Your task to perform on an android device: toggle location history Image 0: 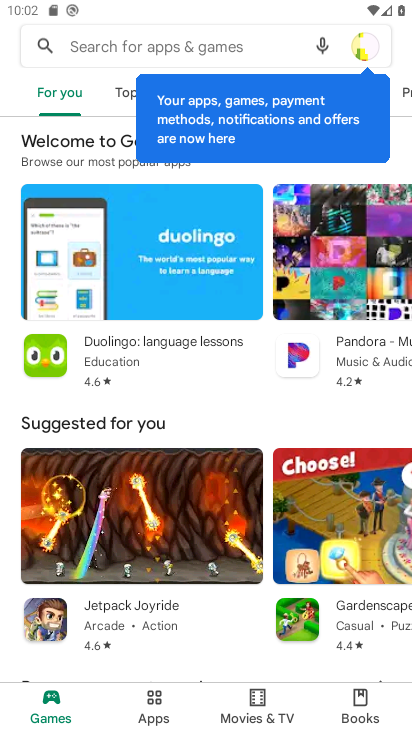
Step 0: press home button
Your task to perform on an android device: toggle location history Image 1: 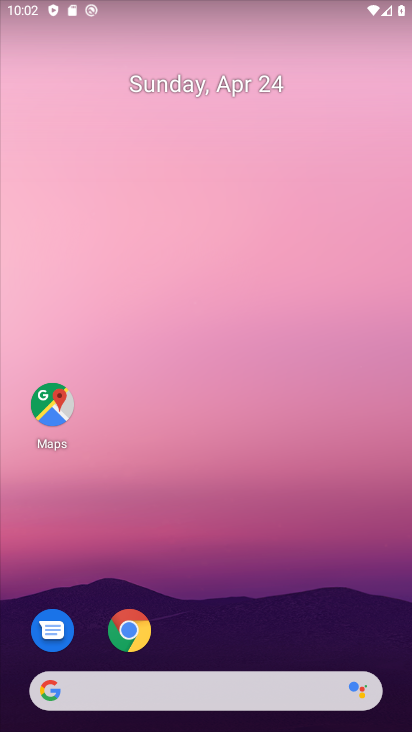
Step 1: drag from (219, 648) to (240, 98)
Your task to perform on an android device: toggle location history Image 2: 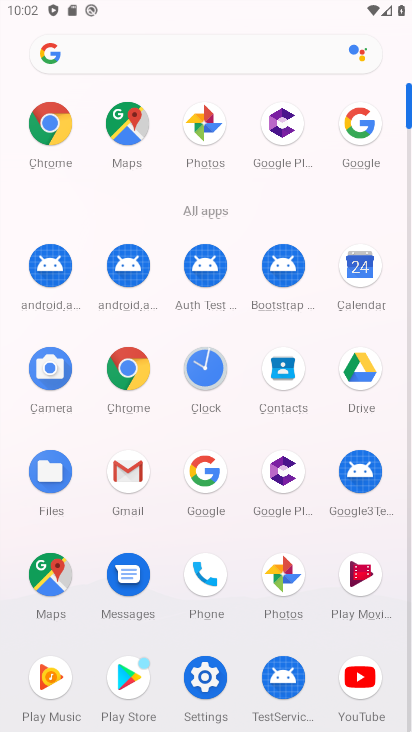
Step 2: click (187, 673)
Your task to perform on an android device: toggle location history Image 3: 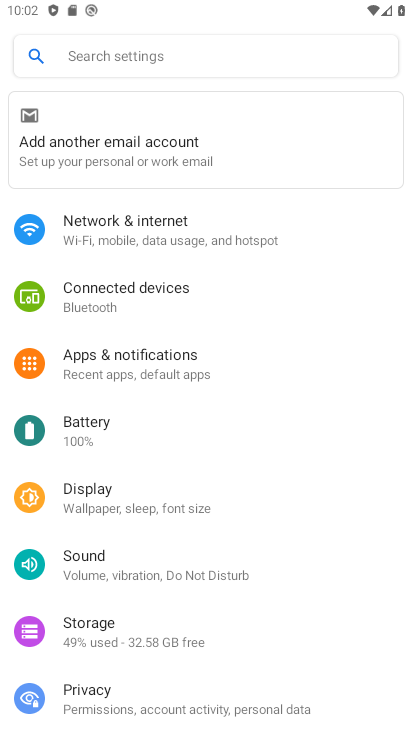
Step 3: drag from (144, 645) to (236, 304)
Your task to perform on an android device: toggle location history Image 4: 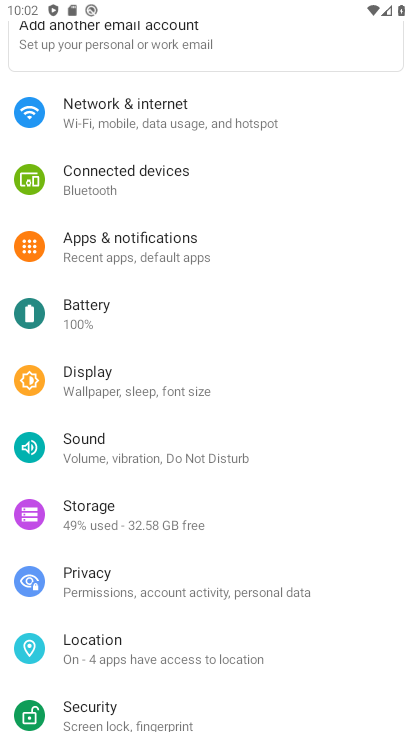
Step 4: click (105, 641)
Your task to perform on an android device: toggle location history Image 5: 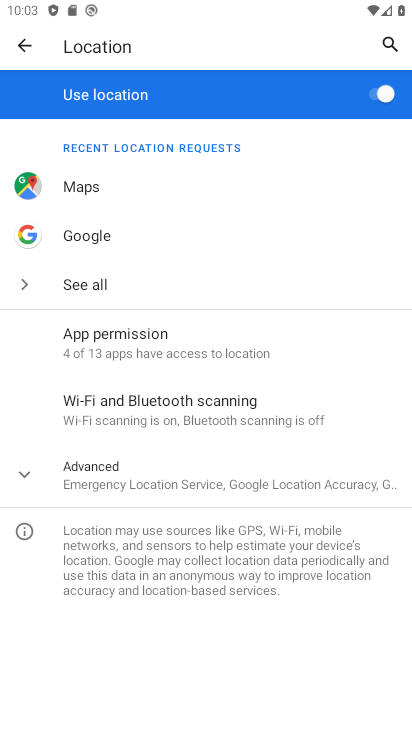
Step 5: click (159, 477)
Your task to perform on an android device: toggle location history Image 6: 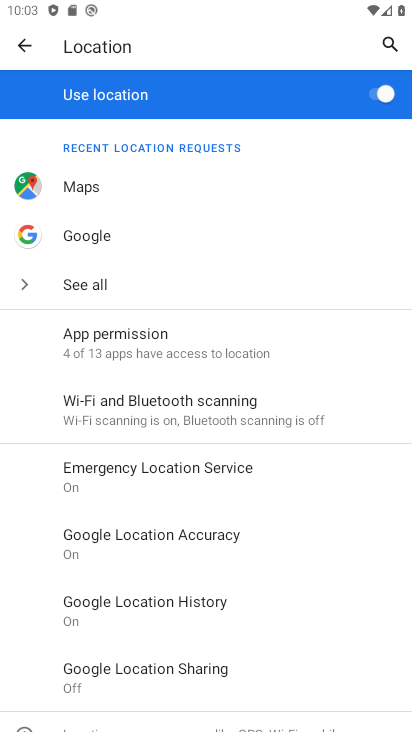
Step 6: click (204, 613)
Your task to perform on an android device: toggle location history Image 7: 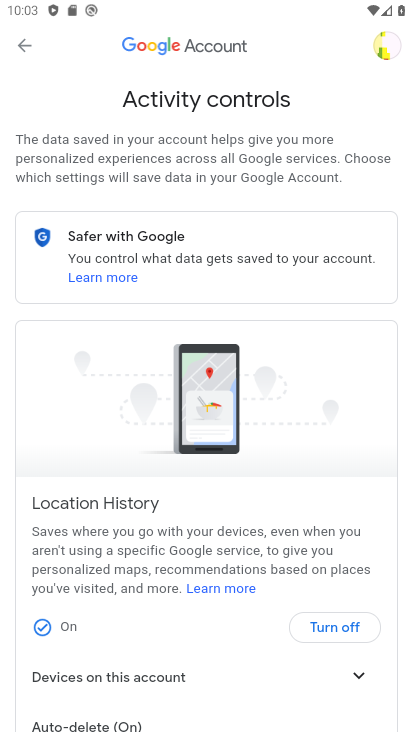
Step 7: click (336, 635)
Your task to perform on an android device: toggle location history Image 8: 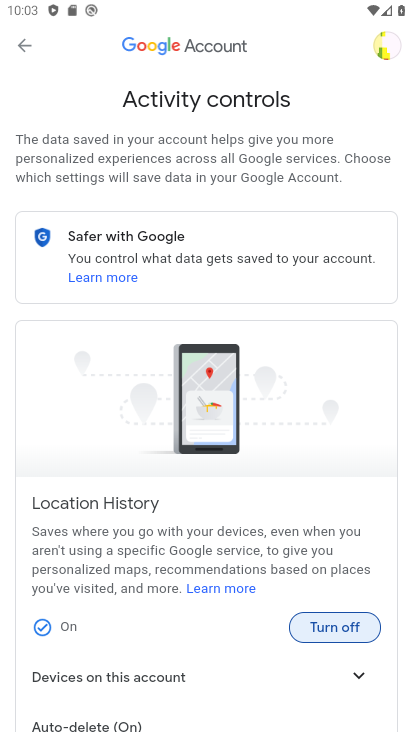
Step 8: click (335, 628)
Your task to perform on an android device: toggle location history Image 9: 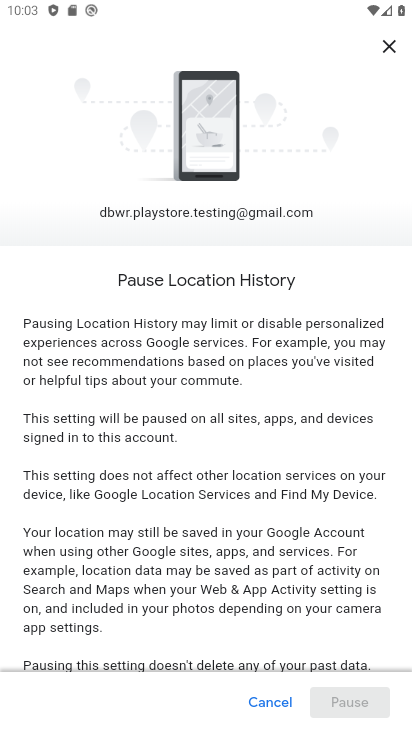
Step 9: drag from (323, 609) to (301, 167)
Your task to perform on an android device: toggle location history Image 10: 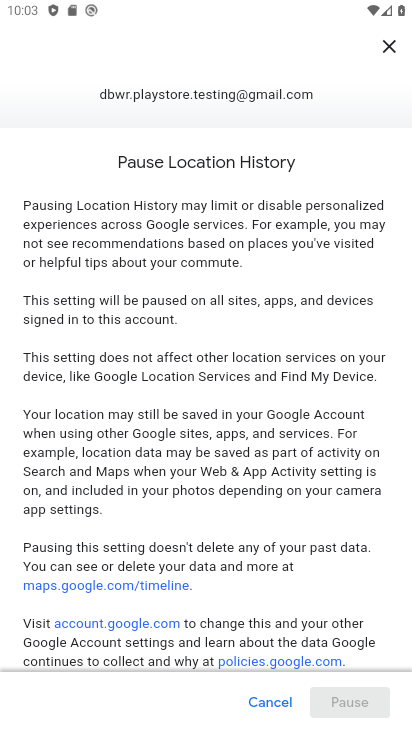
Step 10: drag from (256, 504) to (256, 183)
Your task to perform on an android device: toggle location history Image 11: 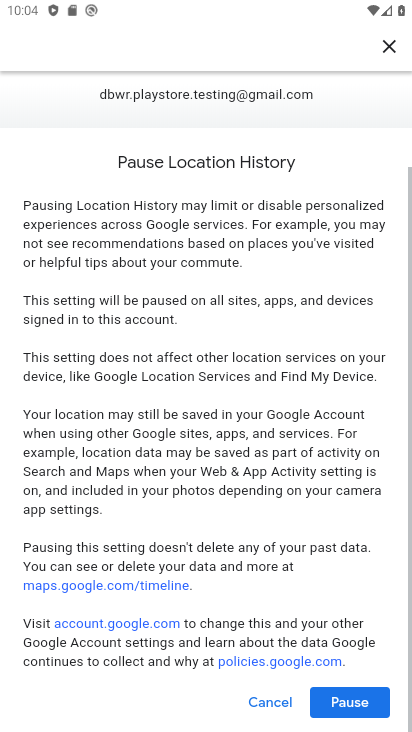
Step 11: drag from (254, 249) to (254, 205)
Your task to perform on an android device: toggle location history Image 12: 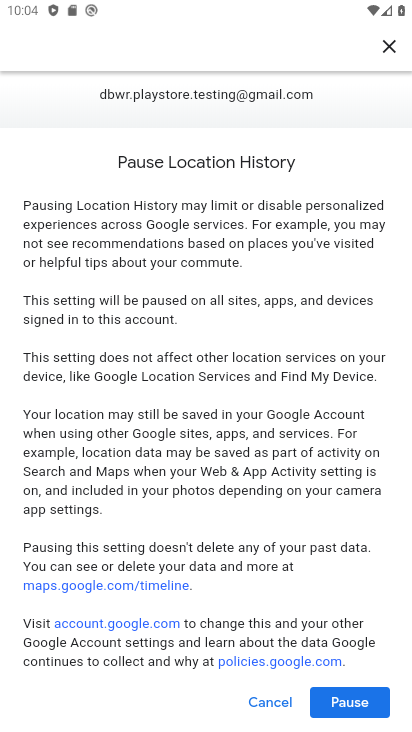
Step 12: click (273, 268)
Your task to perform on an android device: toggle location history Image 13: 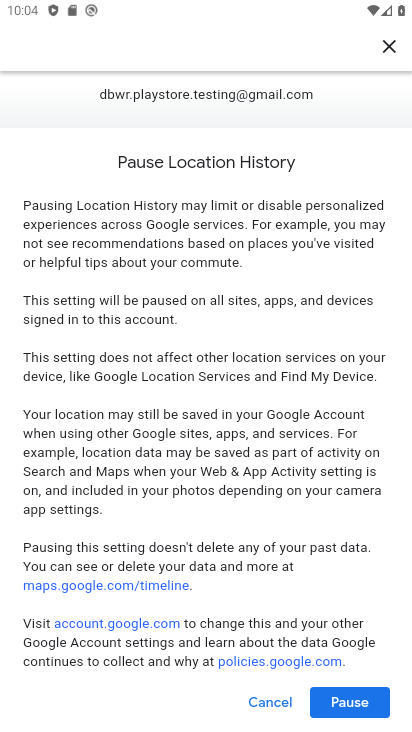
Step 13: click (336, 697)
Your task to perform on an android device: toggle location history Image 14: 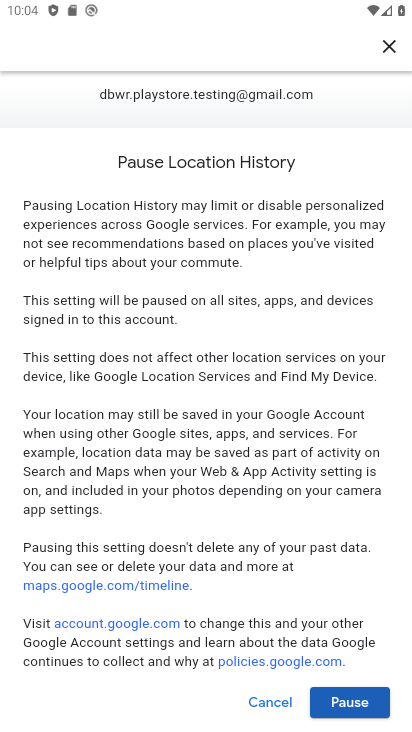
Step 14: click (351, 702)
Your task to perform on an android device: toggle location history Image 15: 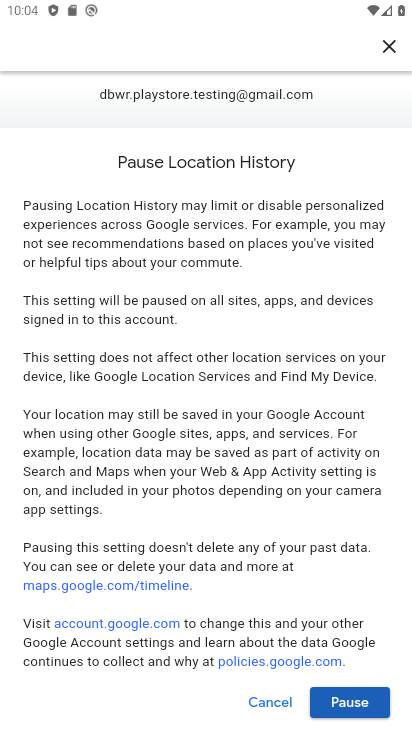
Step 15: click (341, 706)
Your task to perform on an android device: toggle location history Image 16: 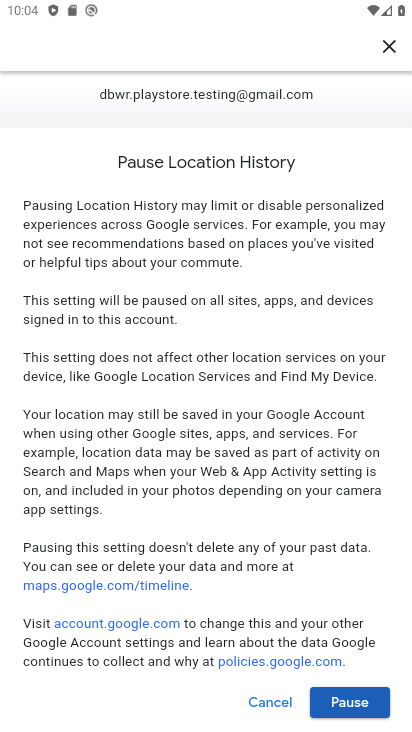
Step 16: click (344, 692)
Your task to perform on an android device: toggle location history Image 17: 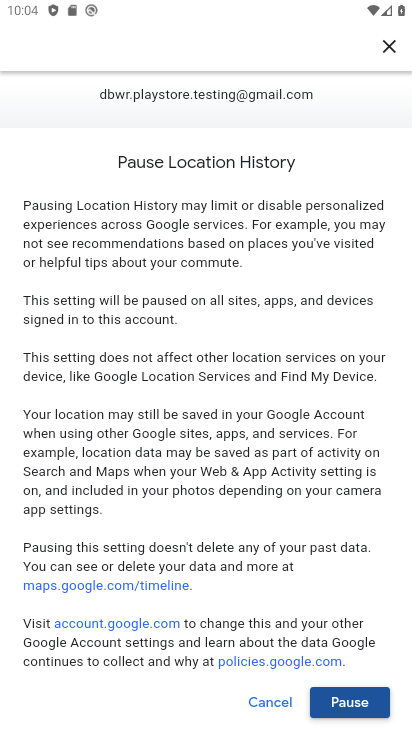
Step 17: click (344, 692)
Your task to perform on an android device: toggle location history Image 18: 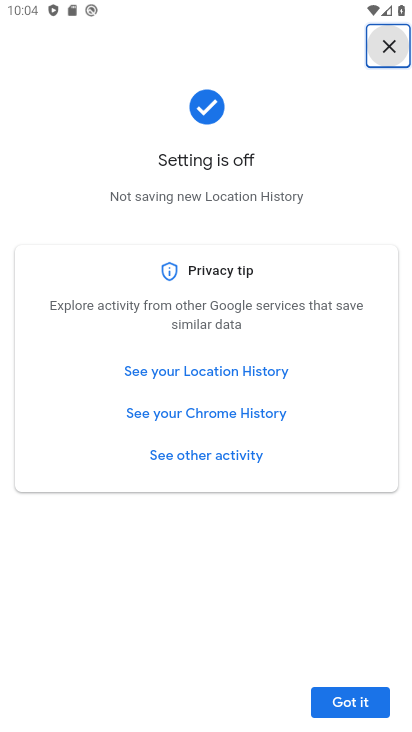
Step 18: task complete